Your task to perform on an android device: Open internet settings Image 0: 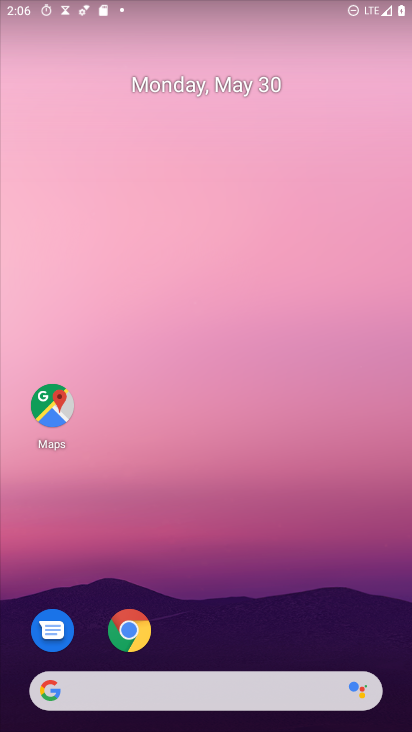
Step 0: drag from (269, 712) to (158, 149)
Your task to perform on an android device: Open internet settings Image 1: 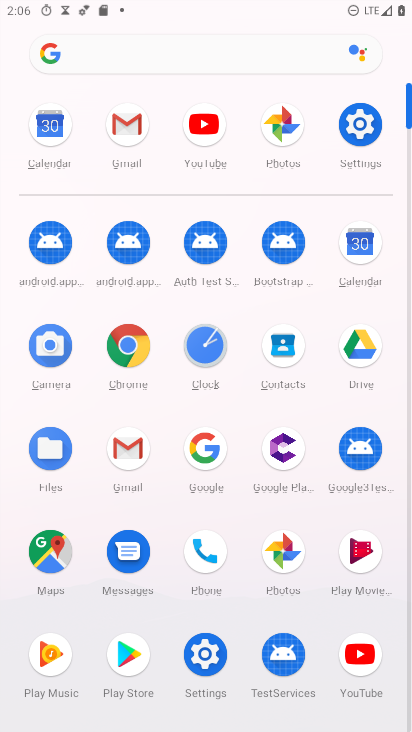
Step 1: click (350, 131)
Your task to perform on an android device: Open internet settings Image 2: 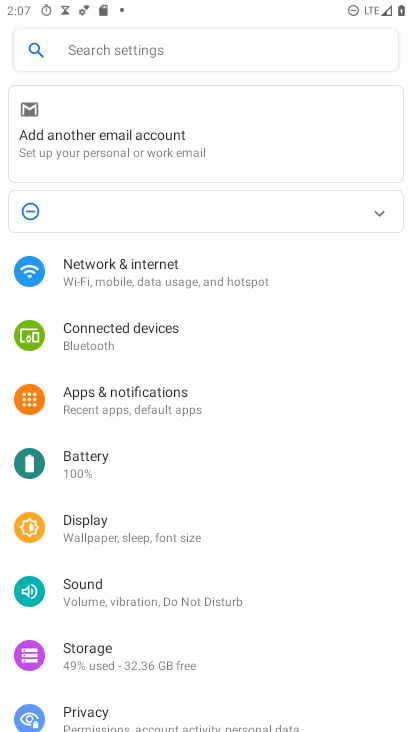
Step 2: click (169, 266)
Your task to perform on an android device: Open internet settings Image 3: 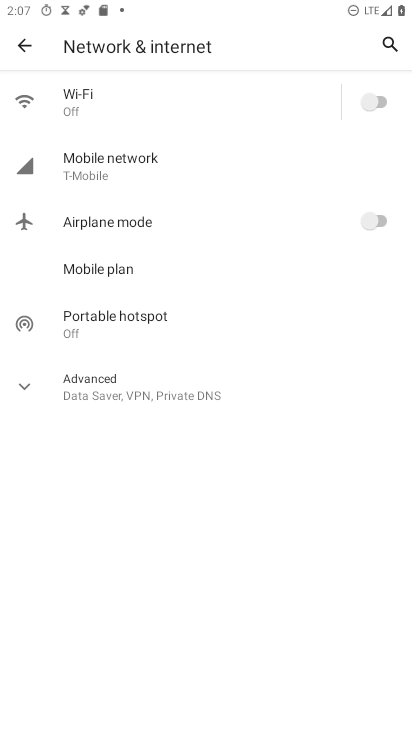
Step 3: task complete